Your task to perform on an android device: When is my next appointment? Image 0: 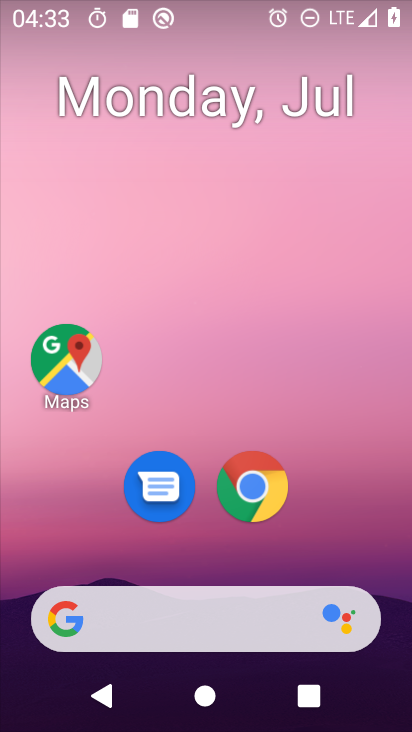
Step 0: drag from (152, 503) to (220, 2)
Your task to perform on an android device: When is my next appointment? Image 1: 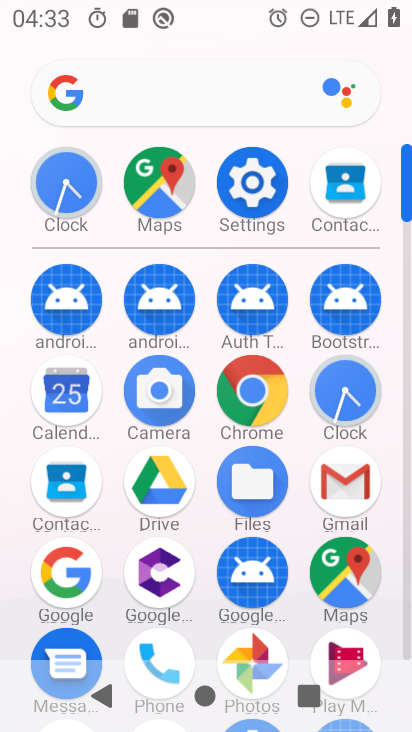
Step 1: click (55, 408)
Your task to perform on an android device: When is my next appointment? Image 2: 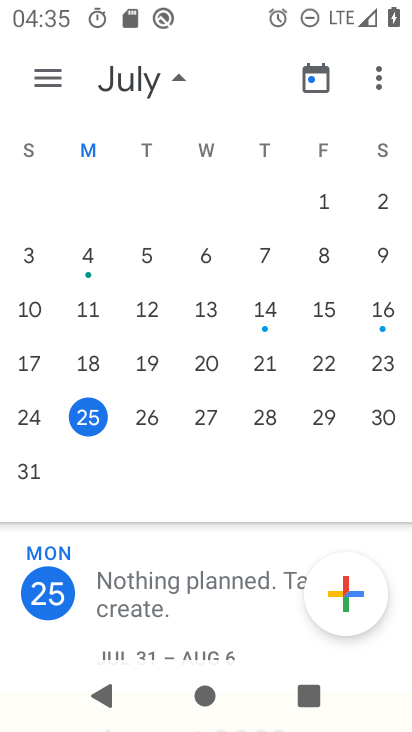
Step 2: task complete